Your task to perform on an android device: turn off smart reply in the gmail app Image 0: 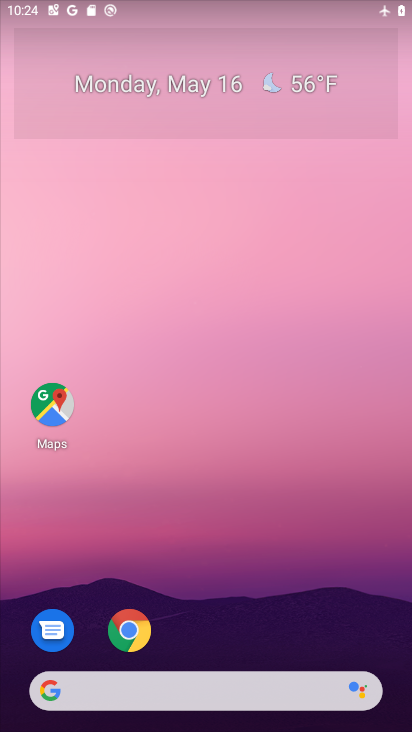
Step 0: drag from (304, 609) to (349, 101)
Your task to perform on an android device: turn off smart reply in the gmail app Image 1: 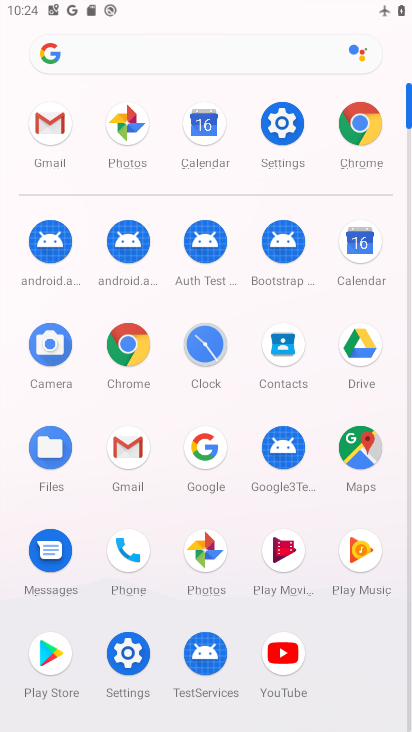
Step 1: click (48, 119)
Your task to perform on an android device: turn off smart reply in the gmail app Image 2: 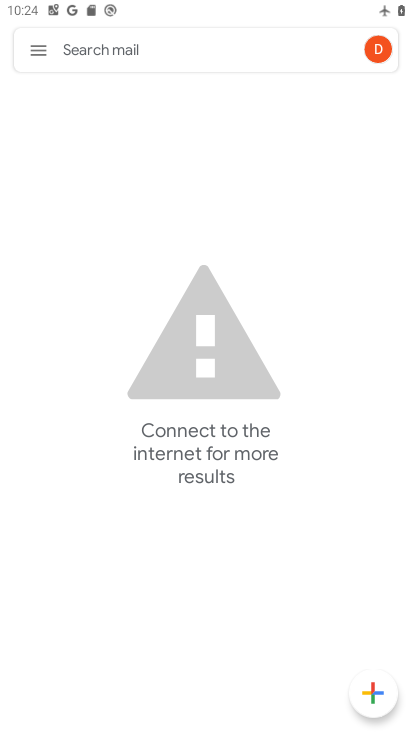
Step 2: click (40, 46)
Your task to perform on an android device: turn off smart reply in the gmail app Image 3: 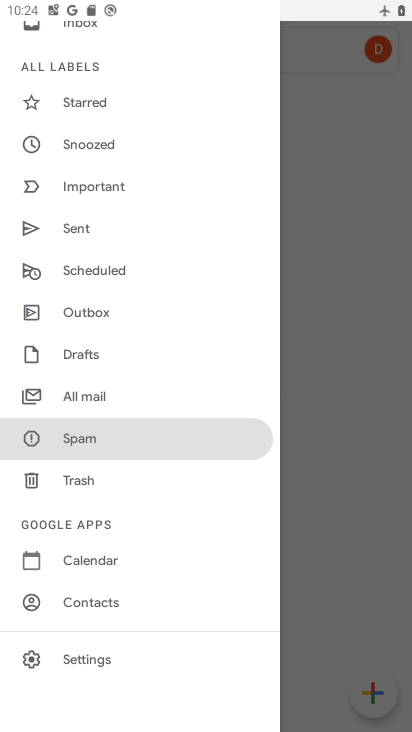
Step 3: click (90, 652)
Your task to perform on an android device: turn off smart reply in the gmail app Image 4: 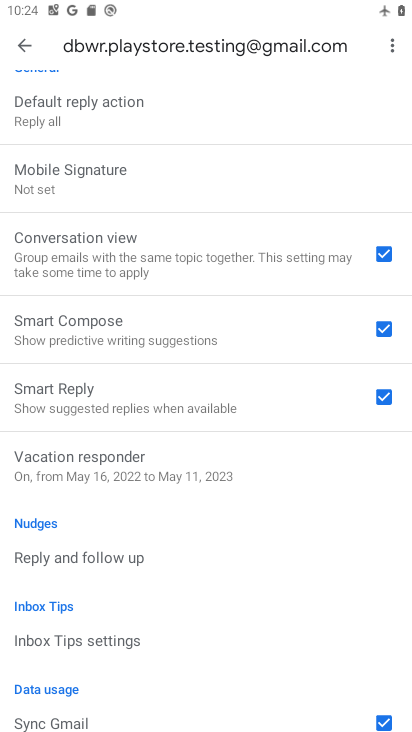
Step 4: click (380, 391)
Your task to perform on an android device: turn off smart reply in the gmail app Image 5: 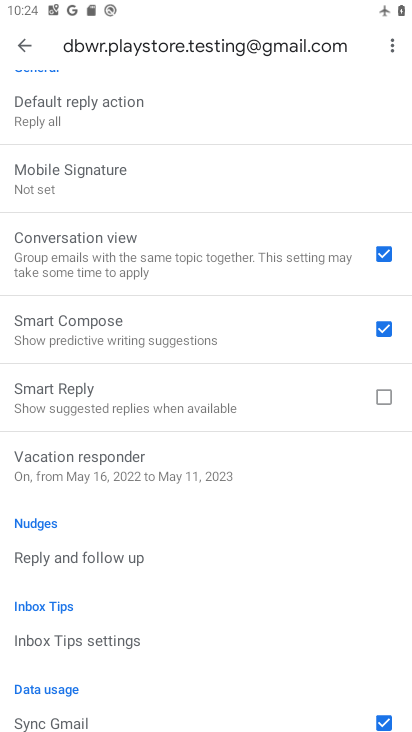
Step 5: task complete